Your task to perform on an android device: set the timer Image 0: 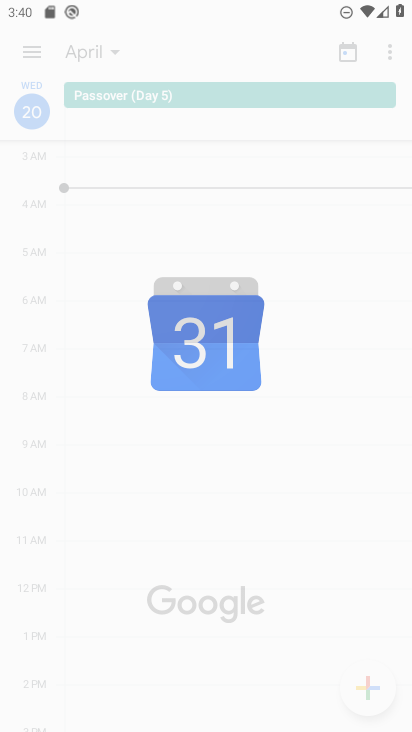
Step 0: click (277, 27)
Your task to perform on an android device: set the timer Image 1: 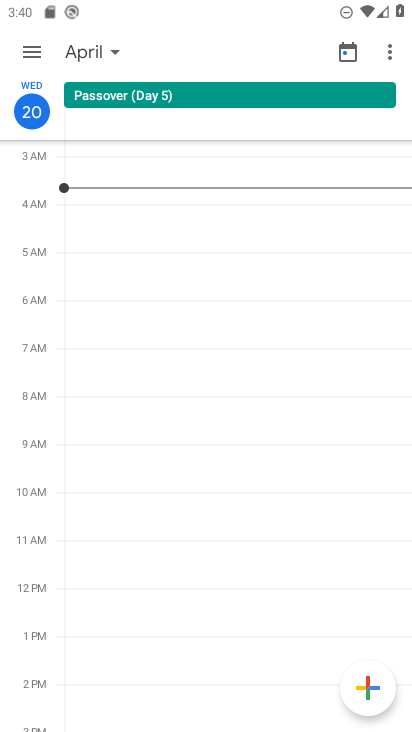
Step 1: press home button
Your task to perform on an android device: set the timer Image 2: 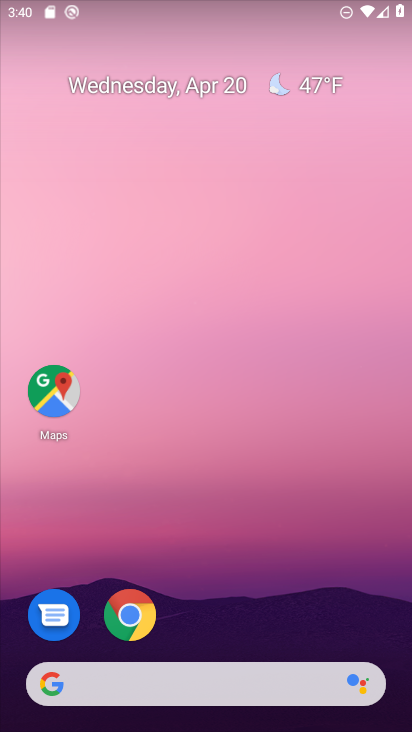
Step 2: drag from (228, 530) to (285, 123)
Your task to perform on an android device: set the timer Image 3: 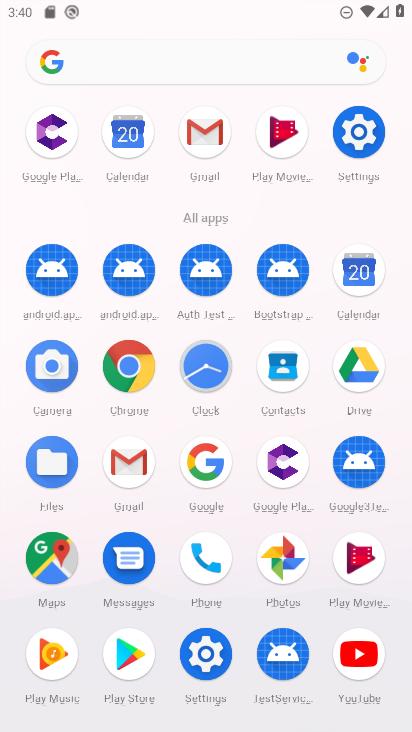
Step 3: click (199, 368)
Your task to perform on an android device: set the timer Image 4: 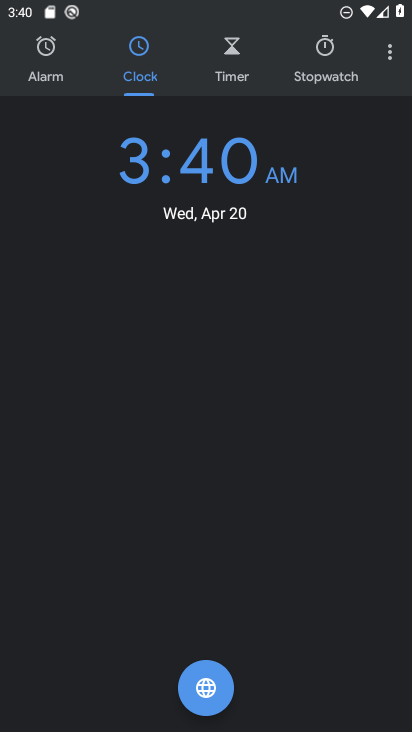
Step 4: click (248, 54)
Your task to perform on an android device: set the timer Image 5: 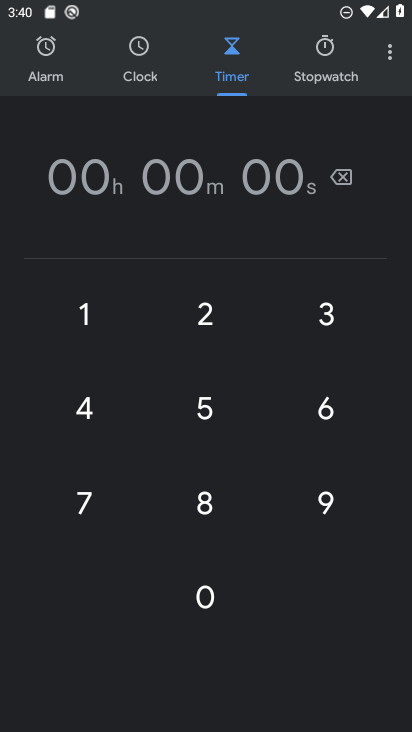
Step 5: click (189, 297)
Your task to perform on an android device: set the timer Image 6: 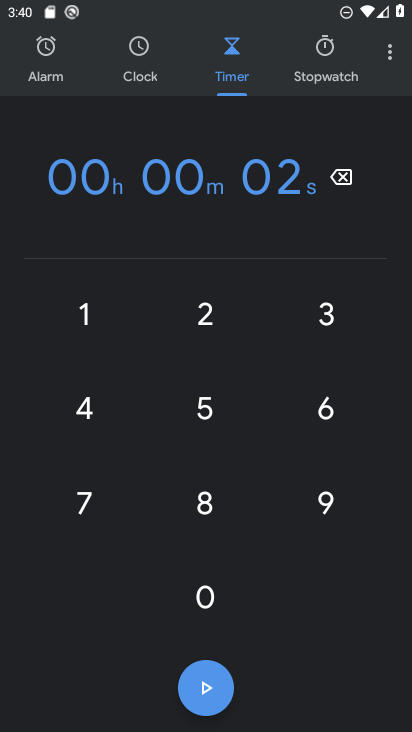
Step 6: click (224, 405)
Your task to perform on an android device: set the timer Image 7: 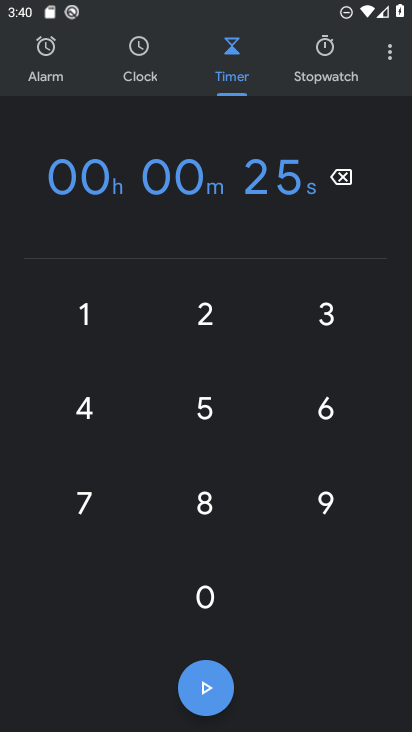
Step 7: click (222, 684)
Your task to perform on an android device: set the timer Image 8: 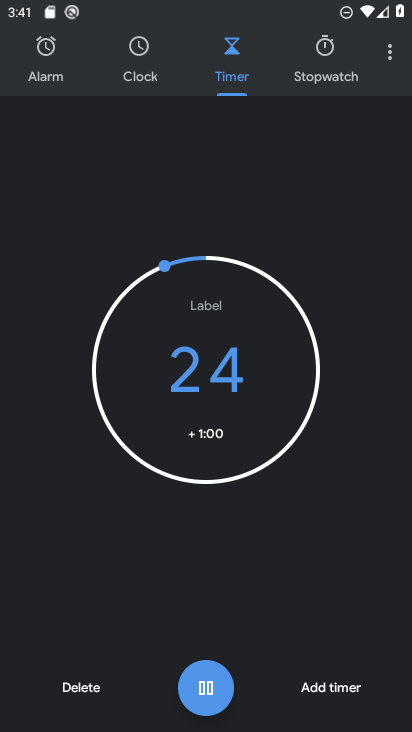
Step 8: task complete